Your task to perform on an android device: visit the assistant section in the google photos Image 0: 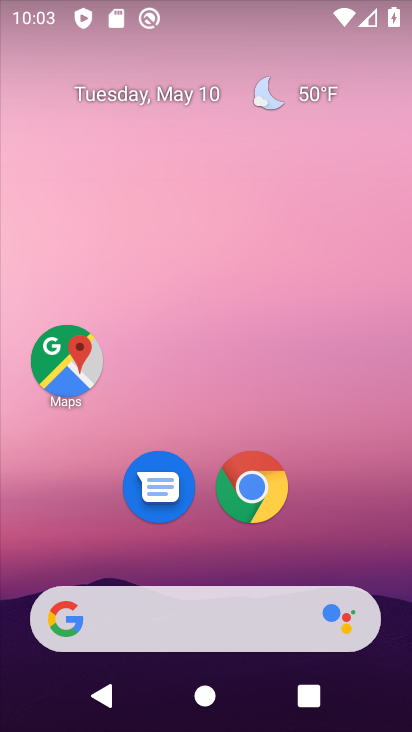
Step 0: drag from (344, 520) to (350, 3)
Your task to perform on an android device: visit the assistant section in the google photos Image 1: 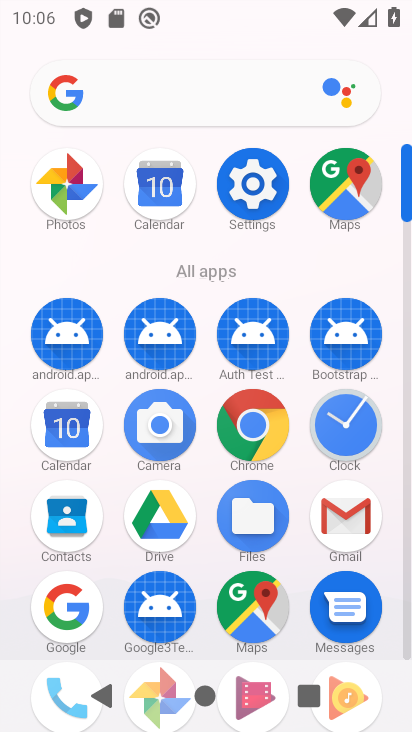
Step 1: click (406, 646)
Your task to perform on an android device: visit the assistant section in the google photos Image 2: 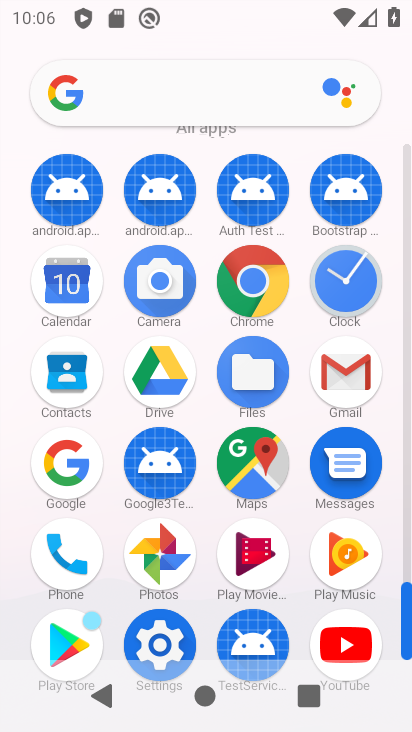
Step 2: click (176, 600)
Your task to perform on an android device: visit the assistant section in the google photos Image 3: 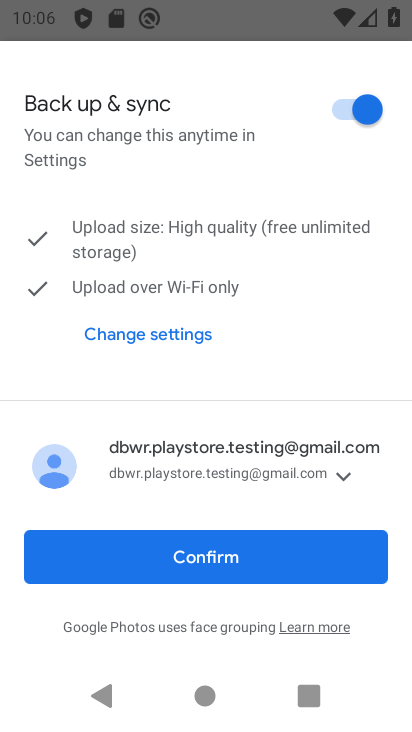
Step 3: click (182, 577)
Your task to perform on an android device: visit the assistant section in the google photos Image 4: 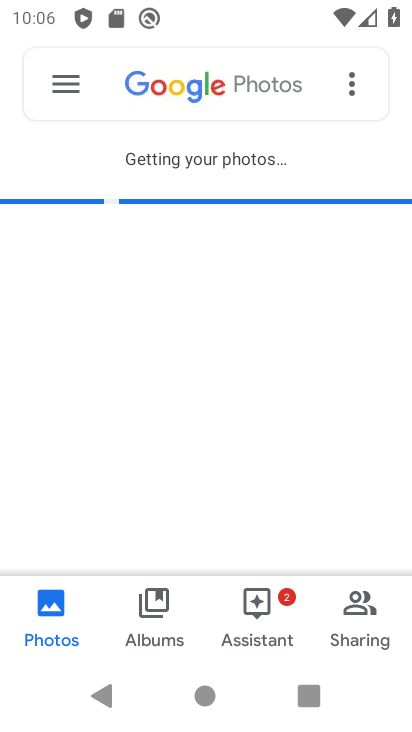
Step 4: click (182, 577)
Your task to perform on an android device: visit the assistant section in the google photos Image 5: 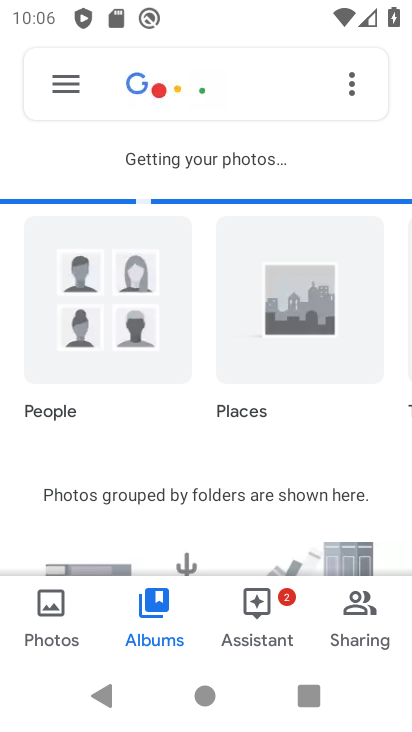
Step 5: click (198, 87)
Your task to perform on an android device: visit the assistant section in the google photos Image 6: 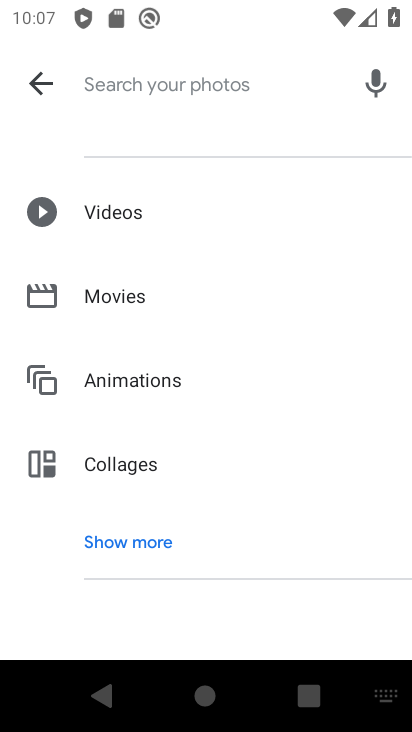
Step 6: click (50, 98)
Your task to perform on an android device: visit the assistant section in the google photos Image 7: 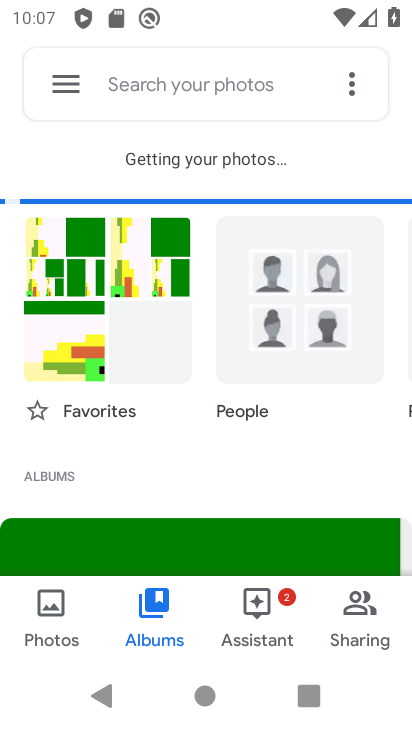
Step 7: click (276, 624)
Your task to perform on an android device: visit the assistant section in the google photos Image 8: 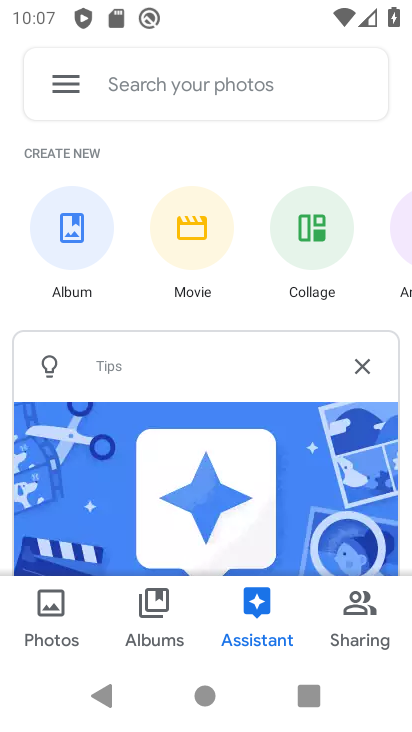
Step 8: task complete